Your task to perform on an android device: Open Chrome and go to settings Image 0: 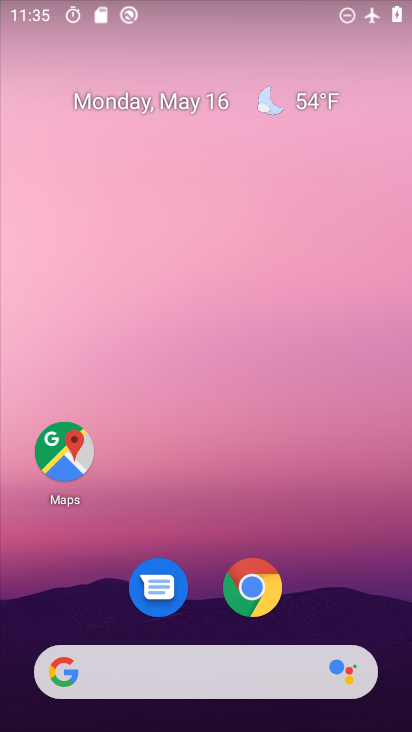
Step 0: click (236, 163)
Your task to perform on an android device: Open Chrome and go to settings Image 1: 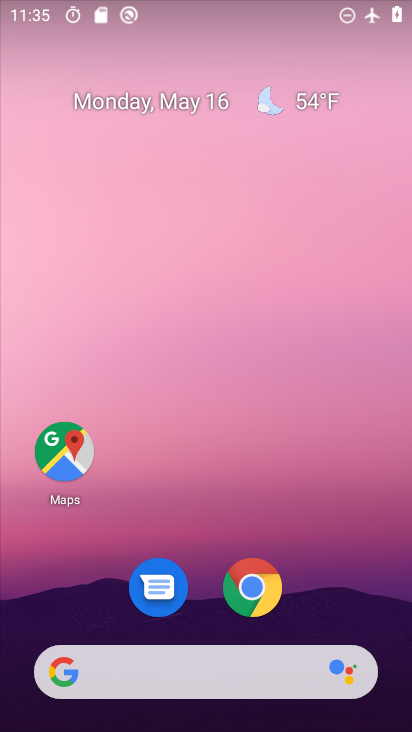
Step 1: drag from (194, 623) to (231, 19)
Your task to perform on an android device: Open Chrome and go to settings Image 2: 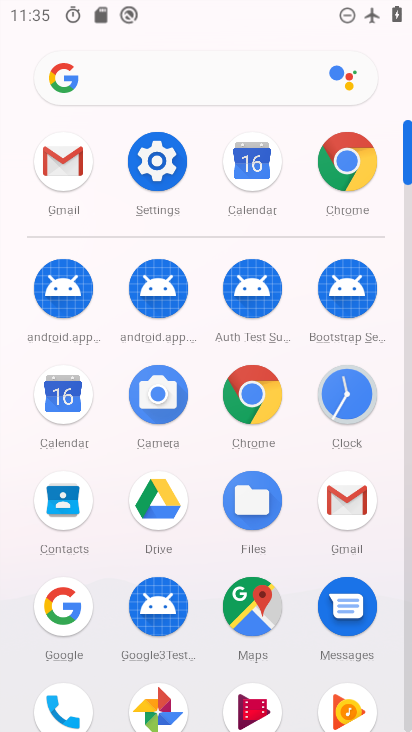
Step 2: click (349, 163)
Your task to perform on an android device: Open Chrome and go to settings Image 3: 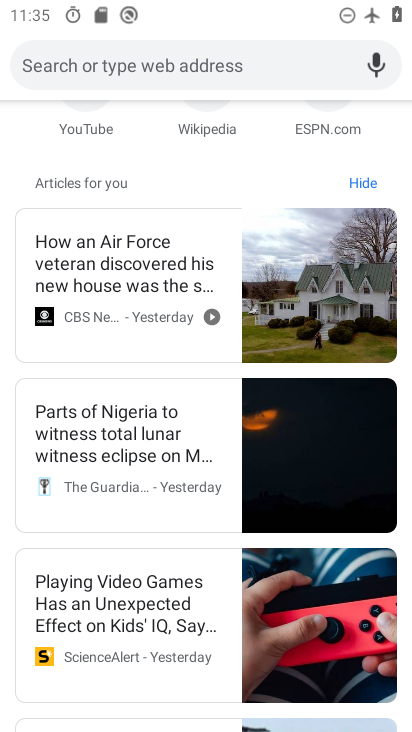
Step 3: drag from (264, 117) to (282, 602)
Your task to perform on an android device: Open Chrome and go to settings Image 4: 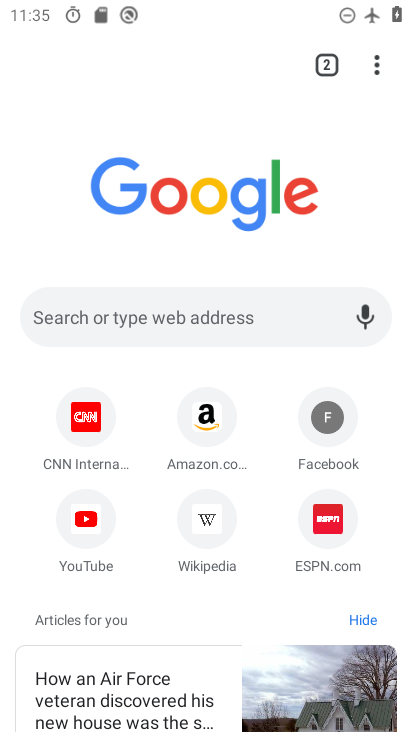
Step 4: click (378, 68)
Your task to perform on an android device: Open Chrome and go to settings Image 5: 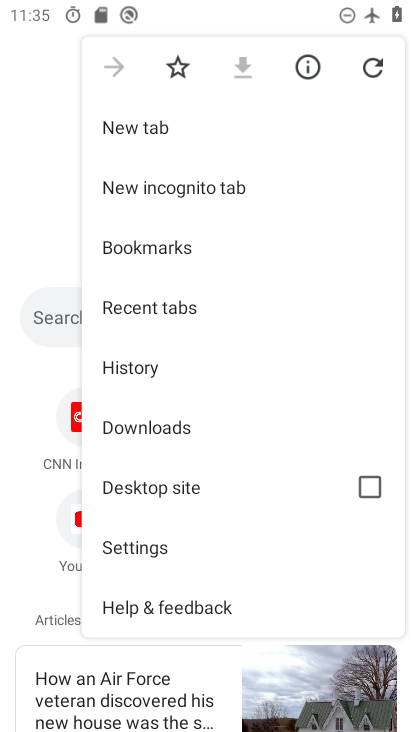
Step 5: click (188, 538)
Your task to perform on an android device: Open Chrome and go to settings Image 6: 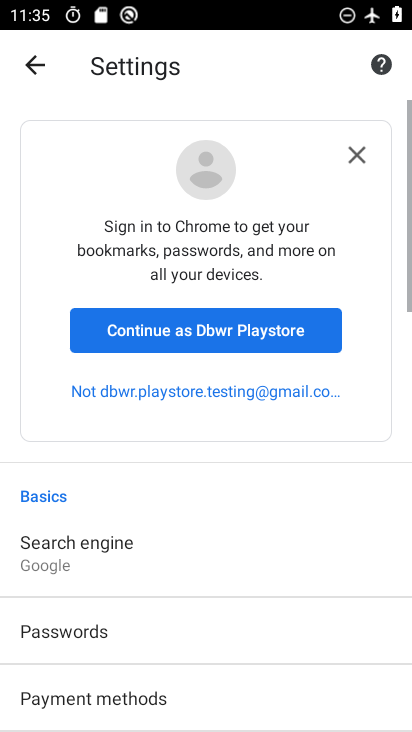
Step 6: task complete